Your task to perform on an android device: clear history in the chrome app Image 0: 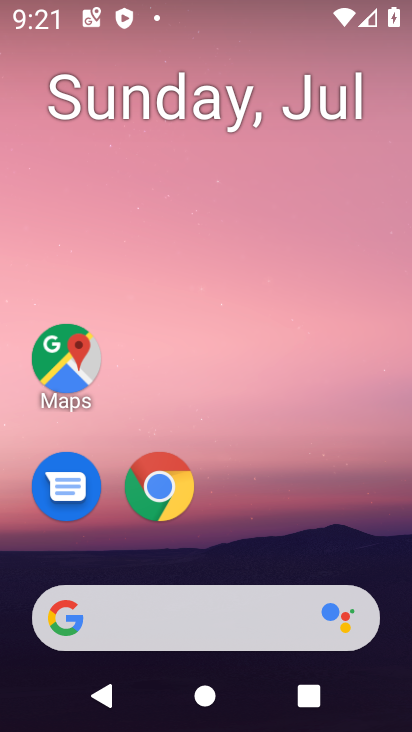
Step 0: drag from (355, 486) to (376, 60)
Your task to perform on an android device: clear history in the chrome app Image 1: 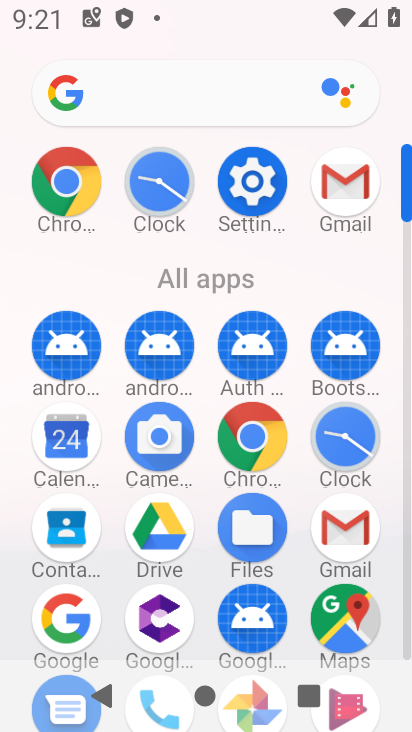
Step 1: click (256, 434)
Your task to perform on an android device: clear history in the chrome app Image 2: 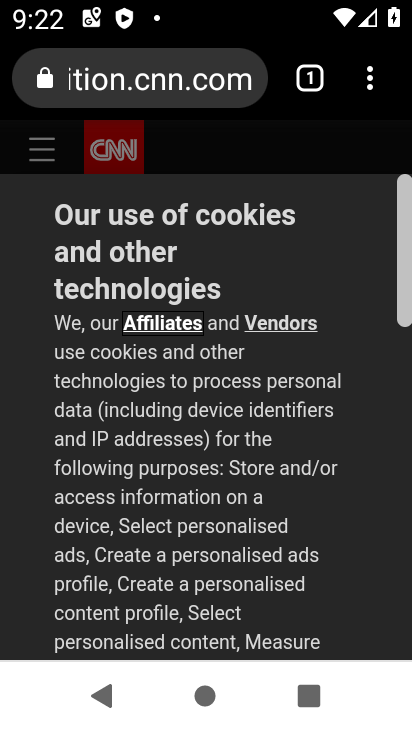
Step 2: click (370, 84)
Your task to perform on an android device: clear history in the chrome app Image 3: 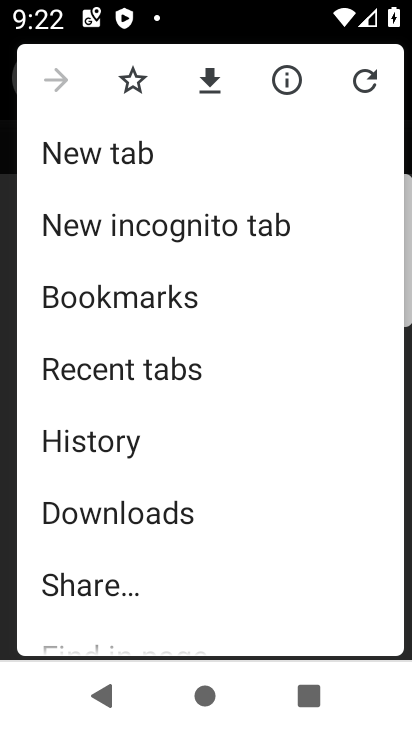
Step 3: click (141, 444)
Your task to perform on an android device: clear history in the chrome app Image 4: 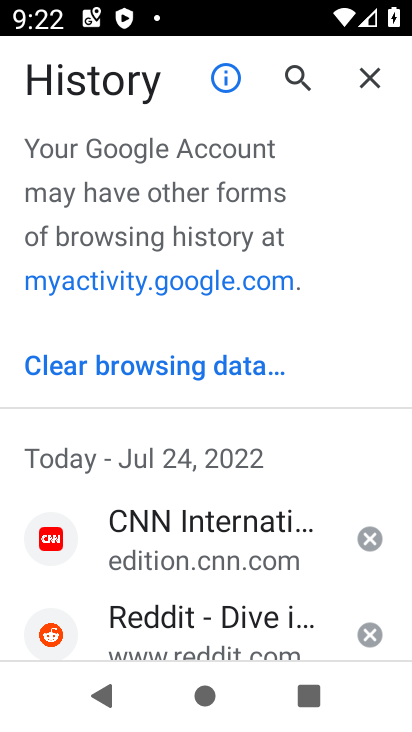
Step 4: click (190, 366)
Your task to perform on an android device: clear history in the chrome app Image 5: 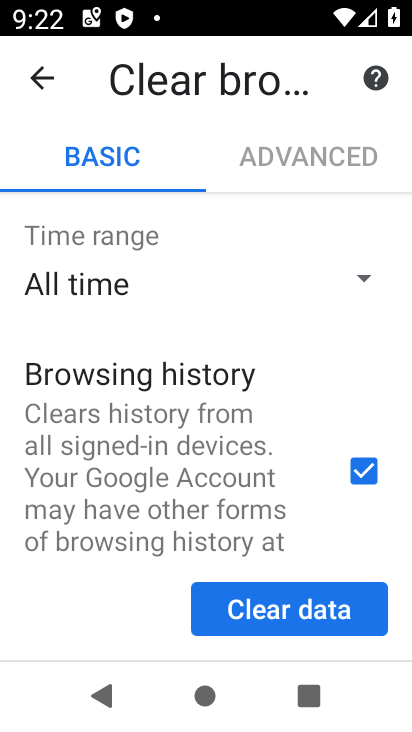
Step 5: click (288, 605)
Your task to perform on an android device: clear history in the chrome app Image 6: 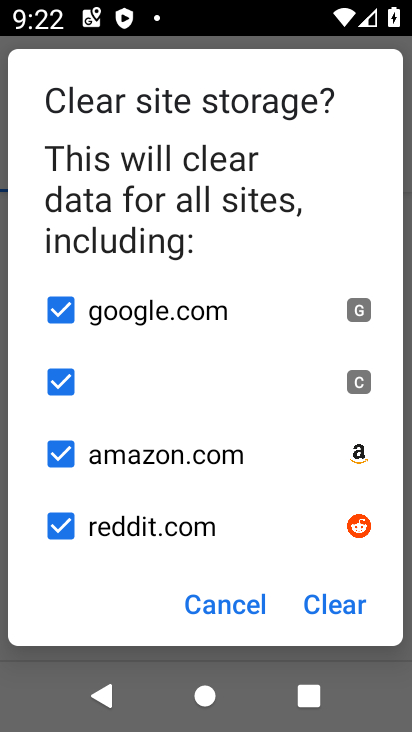
Step 6: click (341, 605)
Your task to perform on an android device: clear history in the chrome app Image 7: 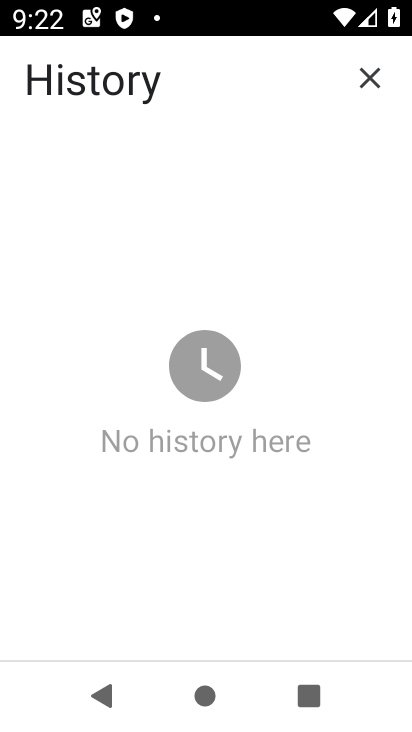
Step 7: task complete